Your task to perform on an android device: toggle notifications settings in the gmail app Image 0: 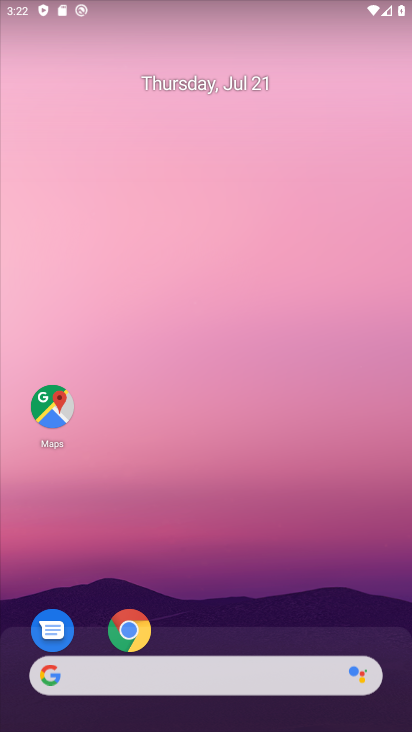
Step 0: drag from (194, 655) to (204, 39)
Your task to perform on an android device: toggle notifications settings in the gmail app Image 1: 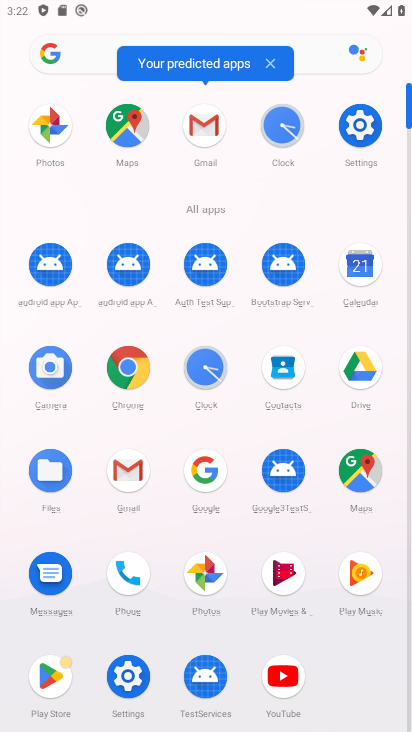
Step 1: click (138, 462)
Your task to perform on an android device: toggle notifications settings in the gmail app Image 2: 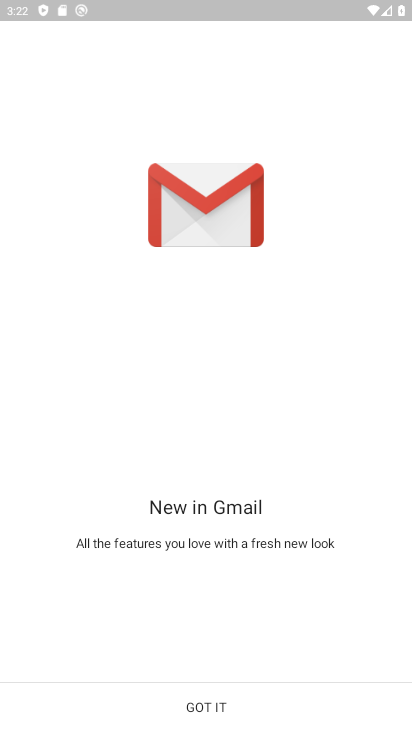
Step 2: click (185, 684)
Your task to perform on an android device: toggle notifications settings in the gmail app Image 3: 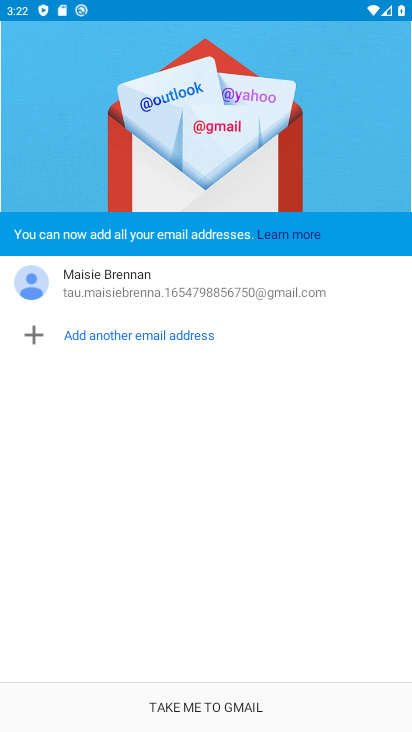
Step 3: click (273, 710)
Your task to perform on an android device: toggle notifications settings in the gmail app Image 4: 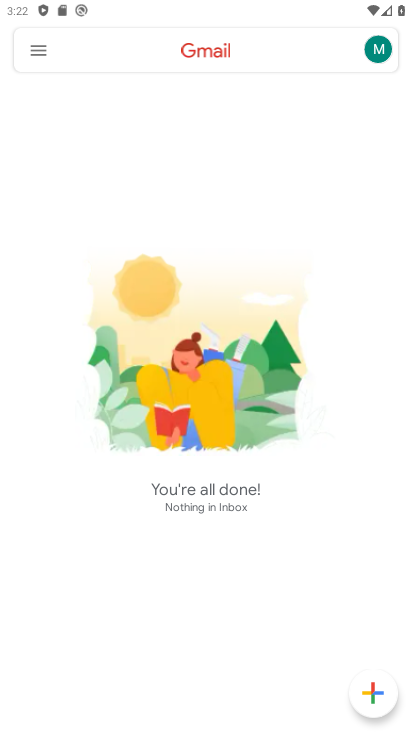
Step 4: click (34, 53)
Your task to perform on an android device: toggle notifications settings in the gmail app Image 5: 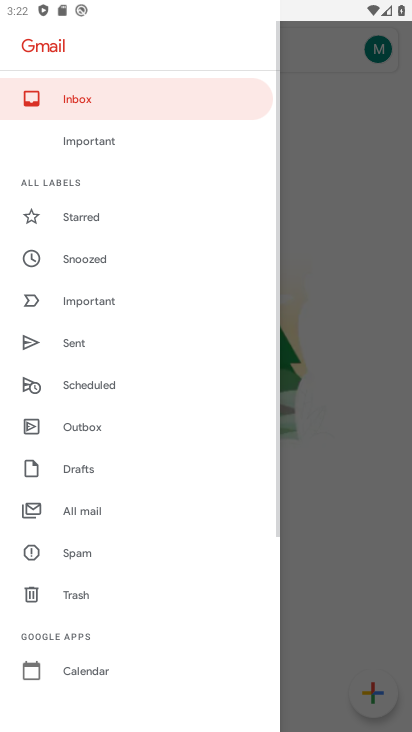
Step 5: drag from (143, 661) to (143, 136)
Your task to perform on an android device: toggle notifications settings in the gmail app Image 6: 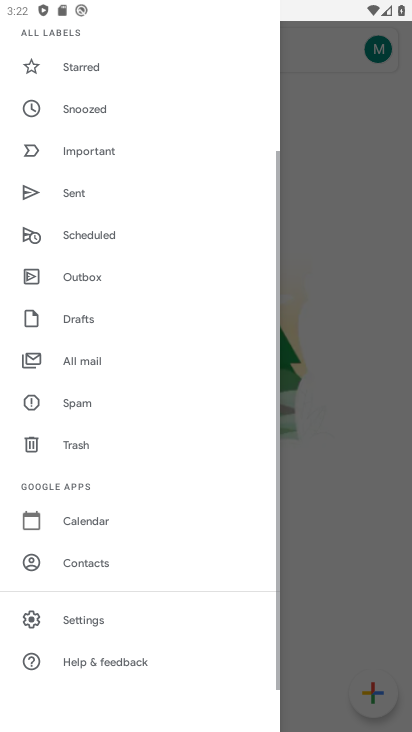
Step 6: click (64, 596)
Your task to perform on an android device: toggle notifications settings in the gmail app Image 7: 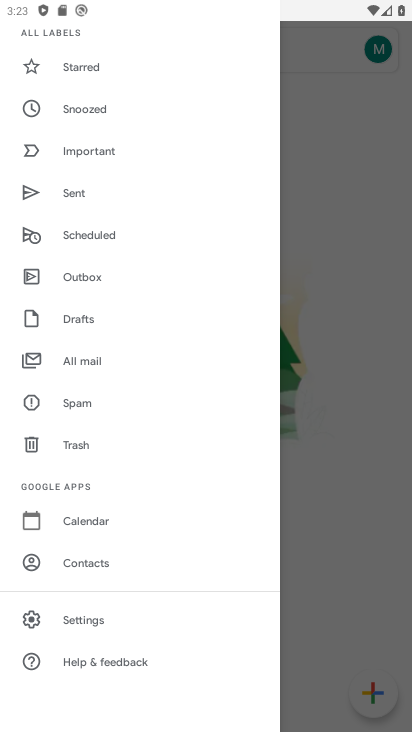
Step 7: click (75, 610)
Your task to perform on an android device: toggle notifications settings in the gmail app Image 8: 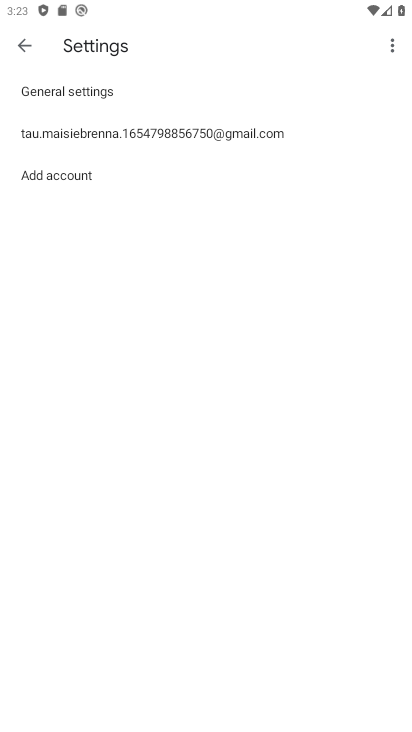
Step 8: click (62, 93)
Your task to perform on an android device: toggle notifications settings in the gmail app Image 9: 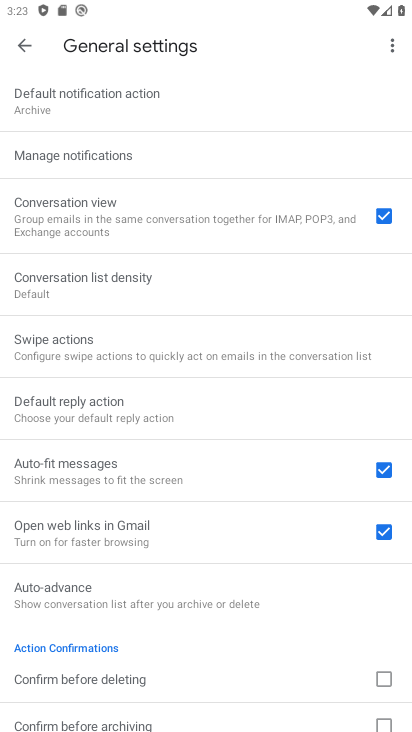
Step 9: click (82, 156)
Your task to perform on an android device: toggle notifications settings in the gmail app Image 10: 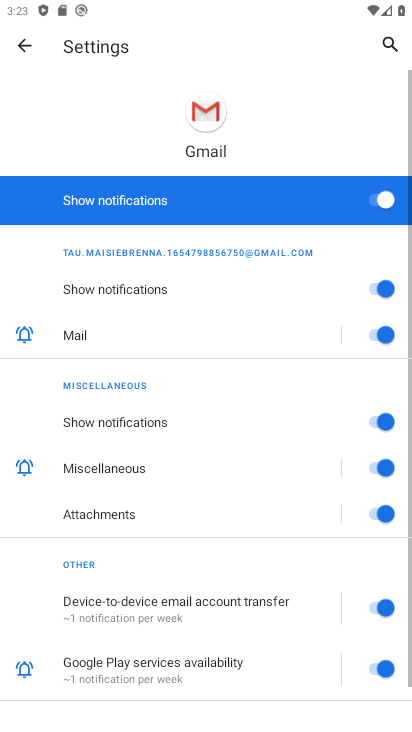
Step 10: click (383, 202)
Your task to perform on an android device: toggle notifications settings in the gmail app Image 11: 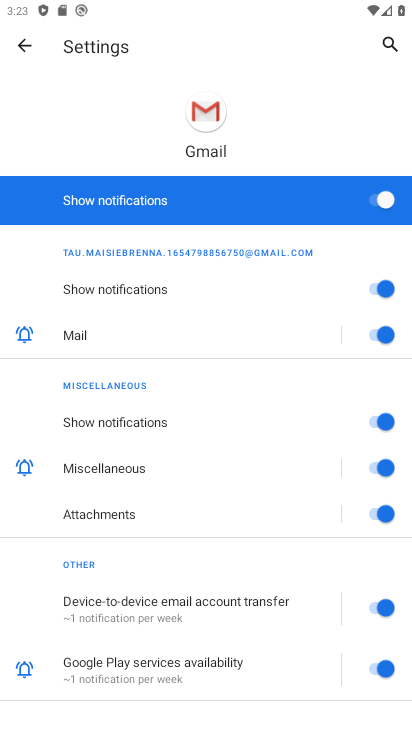
Step 11: task complete